Your task to perform on an android device: turn pop-ups on in chrome Image 0: 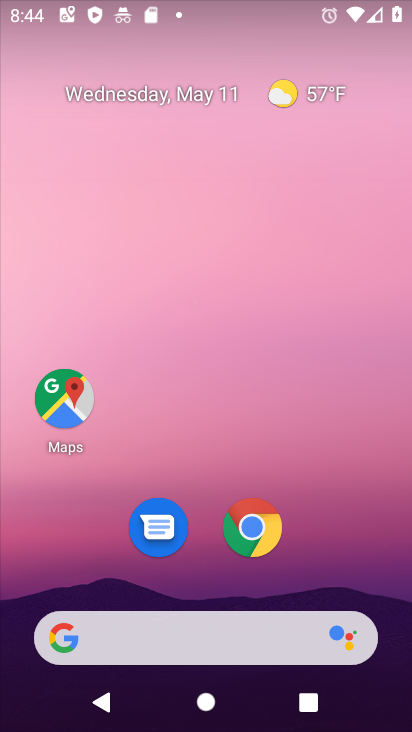
Step 0: click (251, 528)
Your task to perform on an android device: turn pop-ups on in chrome Image 1: 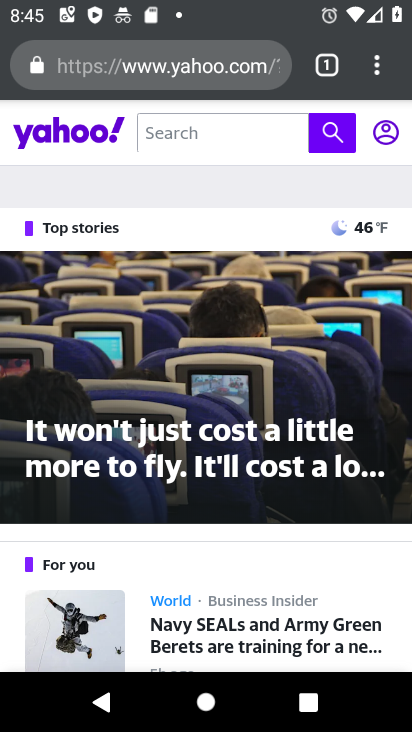
Step 1: drag from (351, 153) to (374, 64)
Your task to perform on an android device: turn pop-ups on in chrome Image 2: 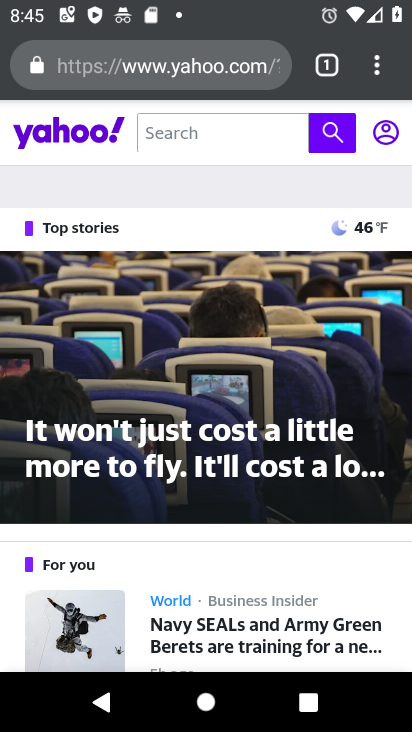
Step 2: drag from (376, 66) to (178, 583)
Your task to perform on an android device: turn pop-ups on in chrome Image 3: 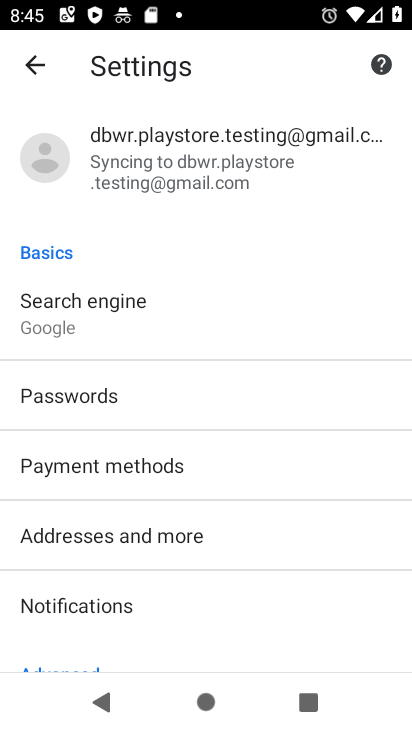
Step 3: drag from (181, 586) to (212, 198)
Your task to perform on an android device: turn pop-ups on in chrome Image 4: 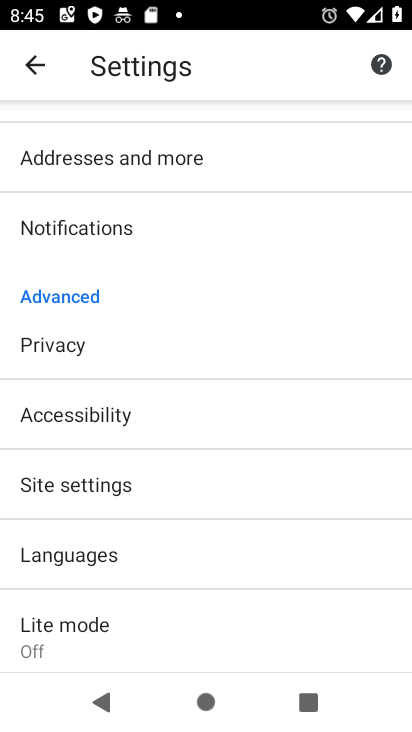
Step 4: click (101, 485)
Your task to perform on an android device: turn pop-ups on in chrome Image 5: 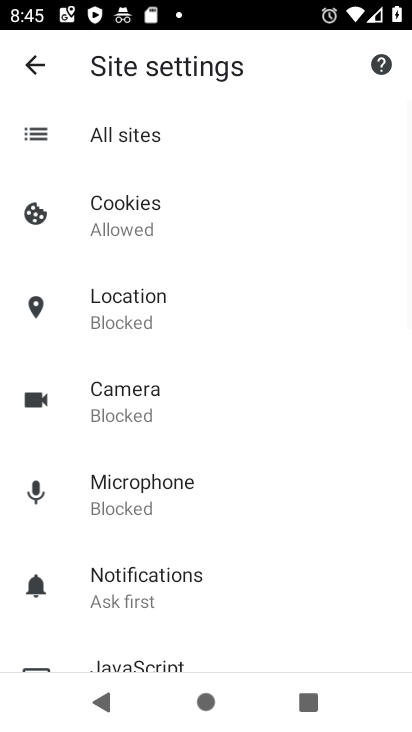
Step 5: drag from (192, 511) to (219, 331)
Your task to perform on an android device: turn pop-ups on in chrome Image 6: 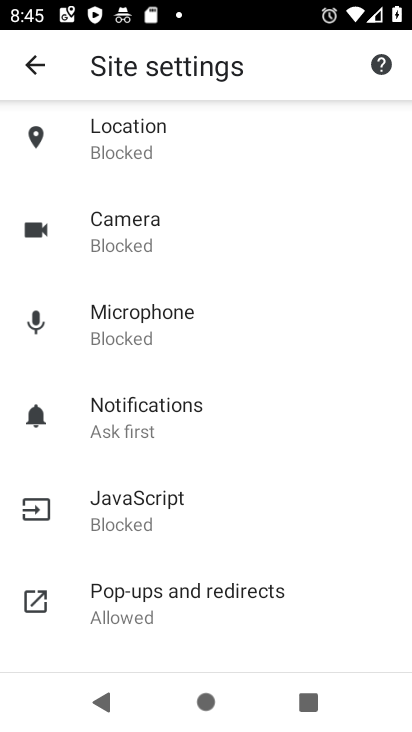
Step 6: click (182, 576)
Your task to perform on an android device: turn pop-ups on in chrome Image 7: 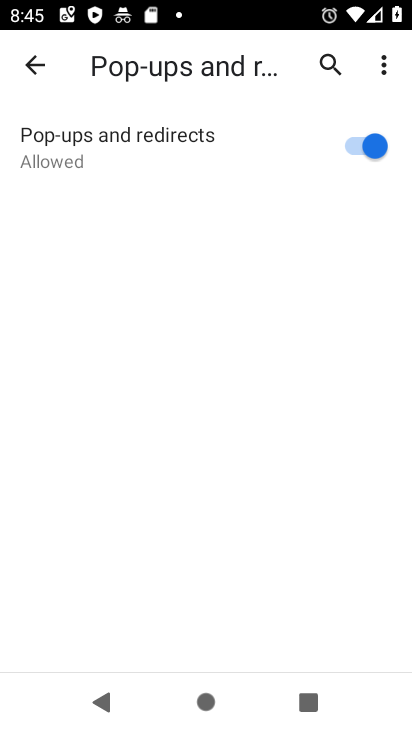
Step 7: task complete